Your task to perform on an android device: turn off notifications in google photos Image 0: 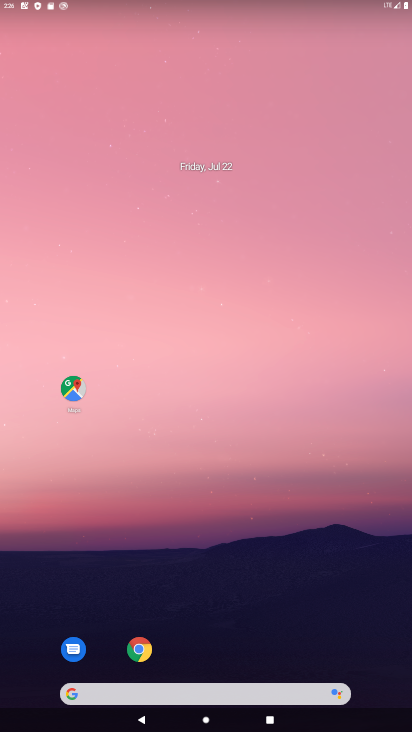
Step 0: click (194, 148)
Your task to perform on an android device: turn off notifications in google photos Image 1: 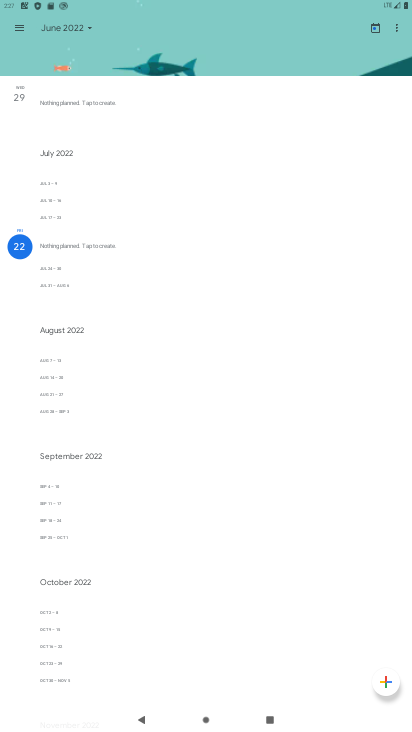
Step 1: press home button
Your task to perform on an android device: turn off notifications in google photos Image 2: 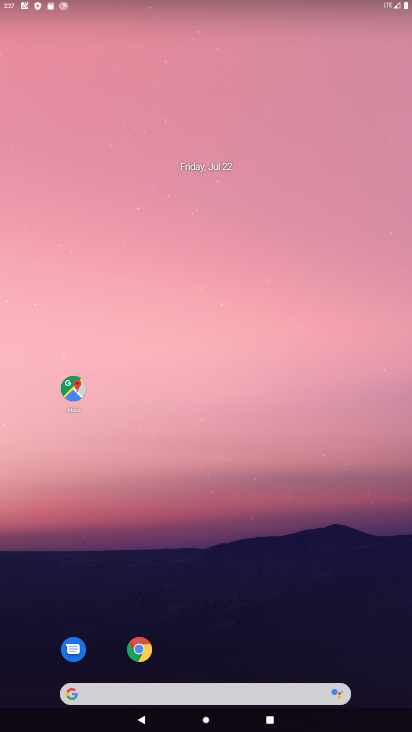
Step 2: drag from (202, 662) to (223, 139)
Your task to perform on an android device: turn off notifications in google photos Image 3: 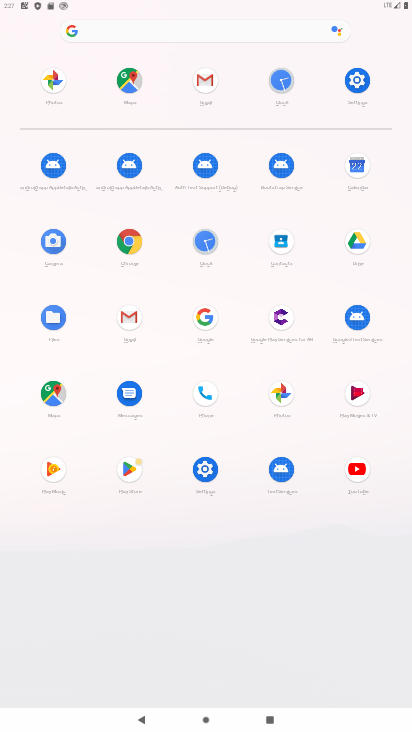
Step 3: click (284, 392)
Your task to perform on an android device: turn off notifications in google photos Image 4: 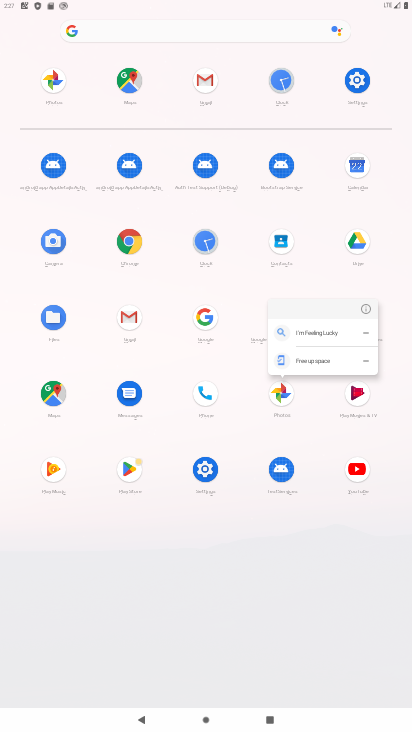
Step 4: click (365, 313)
Your task to perform on an android device: turn off notifications in google photos Image 5: 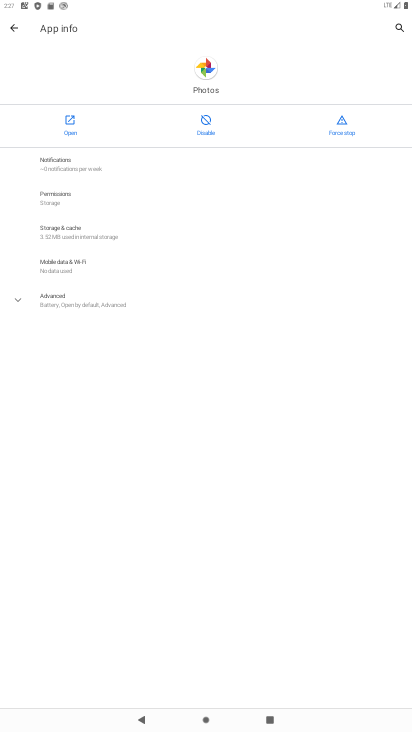
Step 5: click (83, 144)
Your task to perform on an android device: turn off notifications in google photos Image 6: 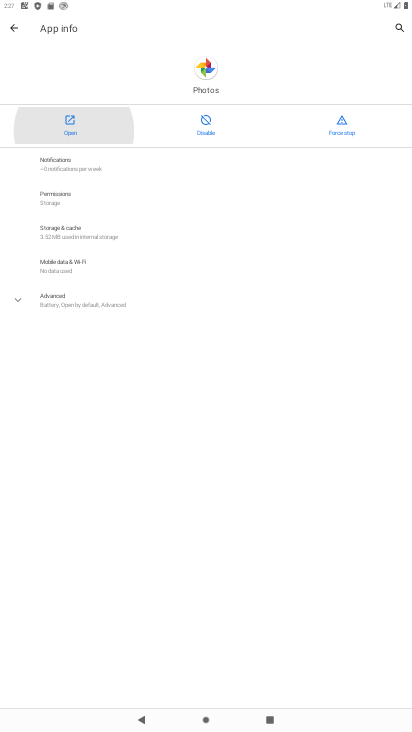
Step 6: click (69, 131)
Your task to perform on an android device: turn off notifications in google photos Image 7: 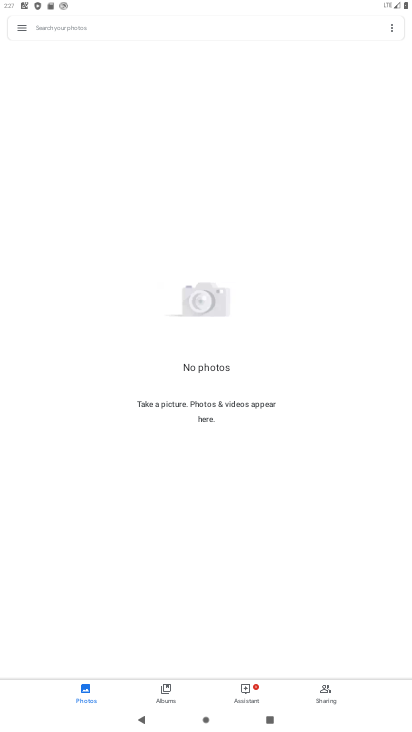
Step 7: click (18, 29)
Your task to perform on an android device: turn off notifications in google photos Image 8: 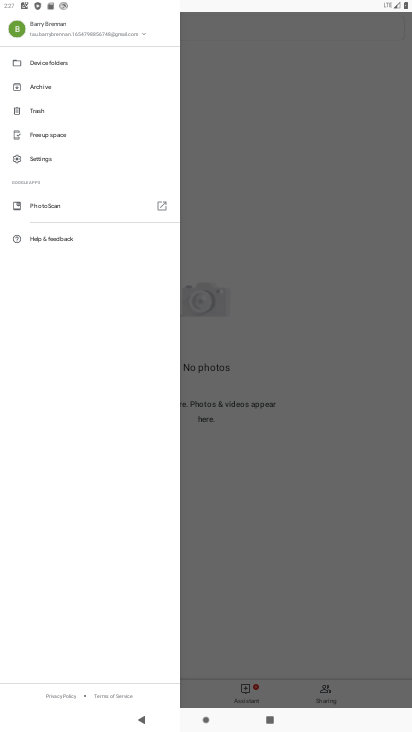
Step 8: click (35, 157)
Your task to perform on an android device: turn off notifications in google photos Image 9: 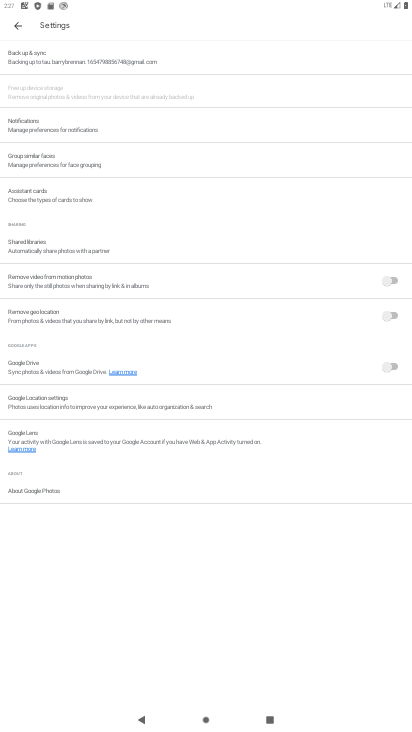
Step 9: click (50, 118)
Your task to perform on an android device: turn off notifications in google photos Image 10: 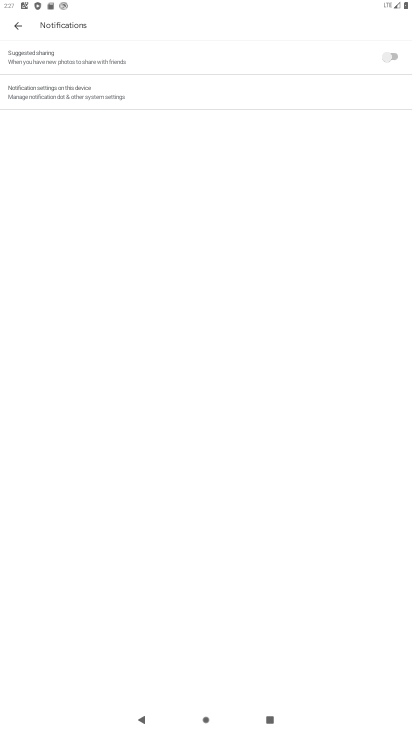
Step 10: click (91, 96)
Your task to perform on an android device: turn off notifications in google photos Image 11: 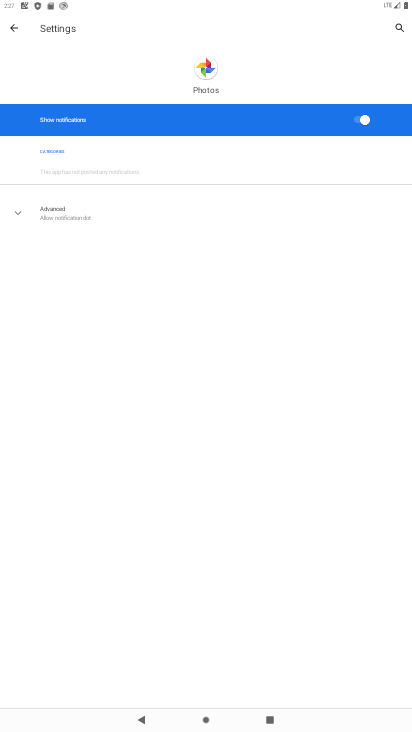
Step 11: click (349, 123)
Your task to perform on an android device: turn off notifications in google photos Image 12: 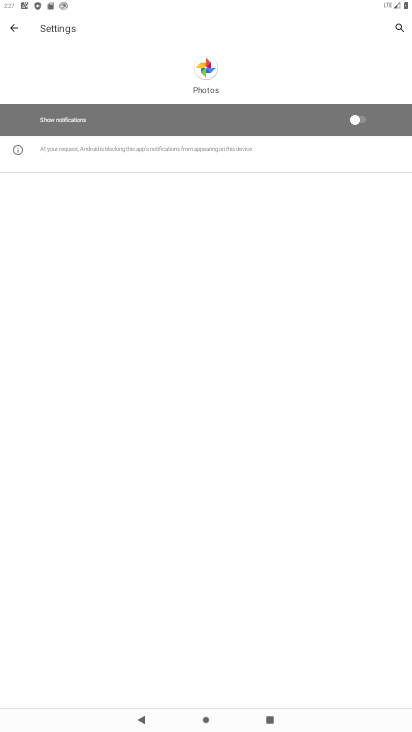
Step 12: task complete